Your task to perform on an android device: turn smart compose on in the gmail app Image 0: 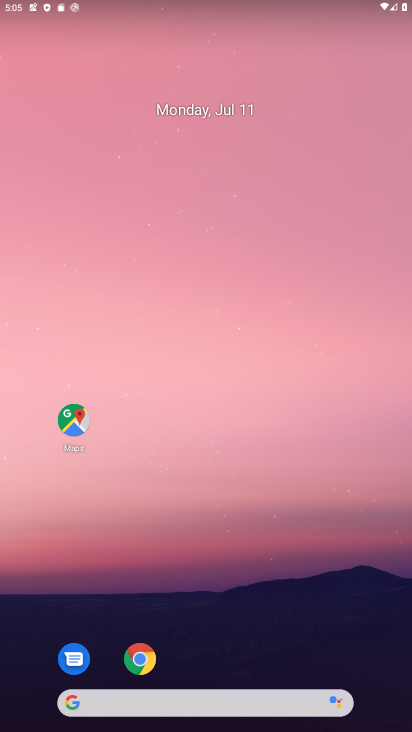
Step 0: drag from (387, 648) to (334, 122)
Your task to perform on an android device: turn smart compose on in the gmail app Image 1: 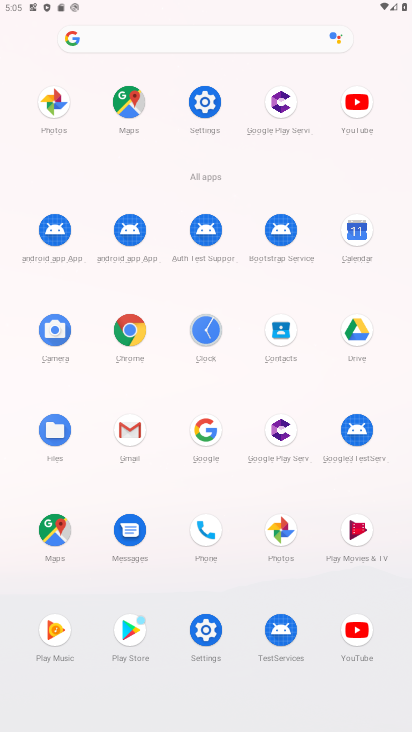
Step 1: click (127, 429)
Your task to perform on an android device: turn smart compose on in the gmail app Image 2: 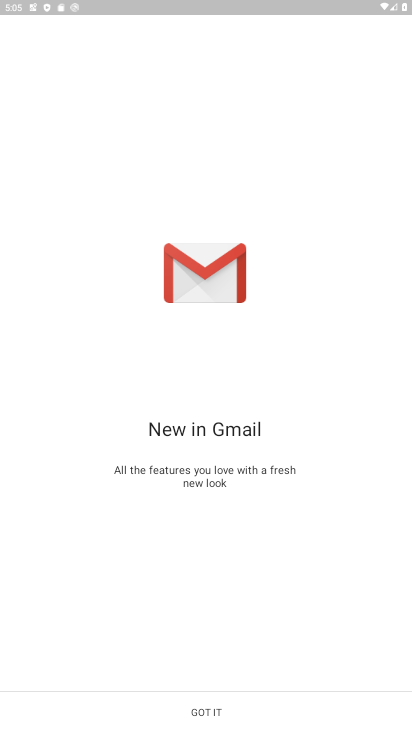
Step 2: click (195, 707)
Your task to perform on an android device: turn smart compose on in the gmail app Image 3: 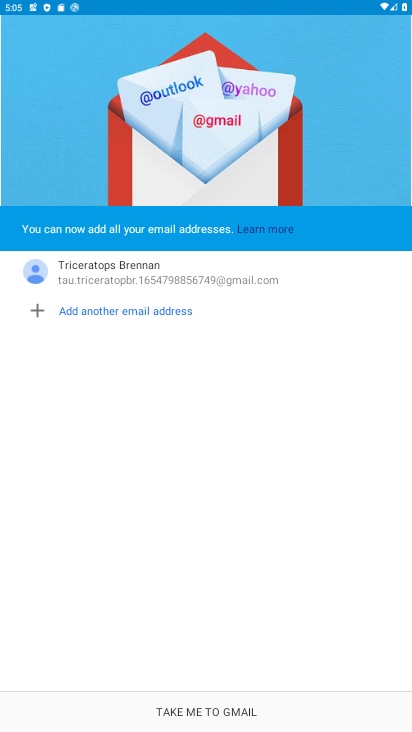
Step 3: click (207, 707)
Your task to perform on an android device: turn smart compose on in the gmail app Image 4: 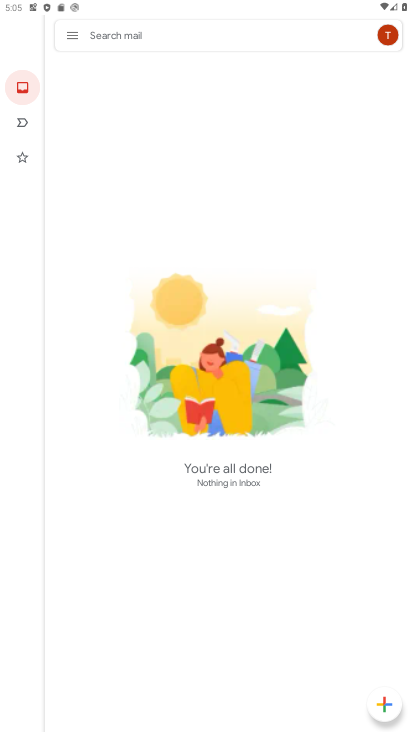
Step 4: click (65, 37)
Your task to perform on an android device: turn smart compose on in the gmail app Image 5: 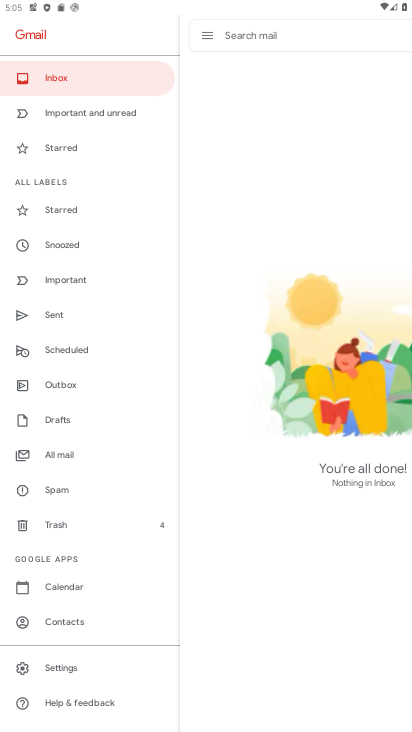
Step 5: drag from (115, 656) to (120, 251)
Your task to perform on an android device: turn smart compose on in the gmail app Image 6: 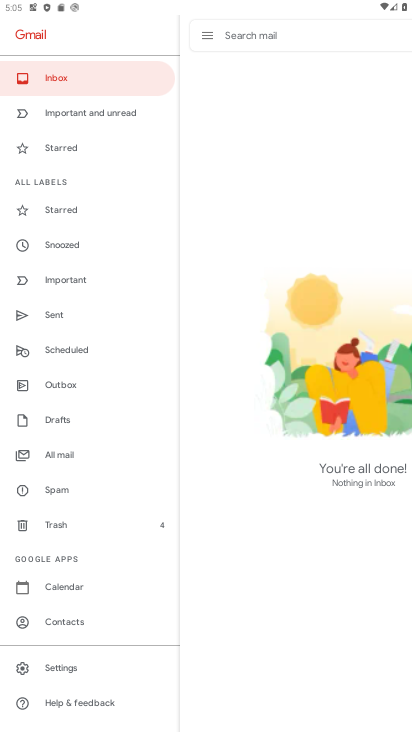
Step 6: click (61, 668)
Your task to perform on an android device: turn smart compose on in the gmail app Image 7: 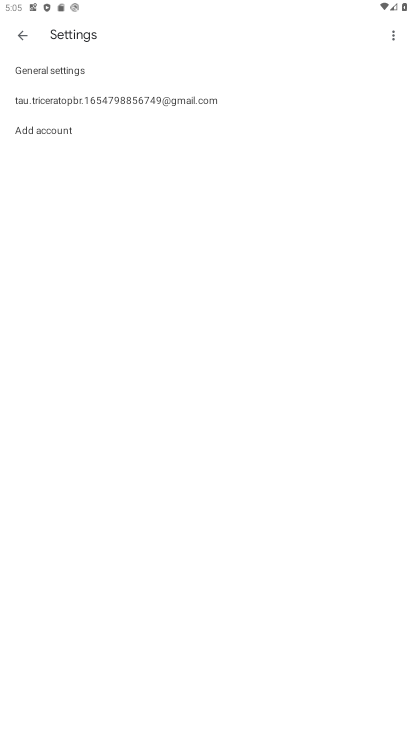
Step 7: click (101, 100)
Your task to perform on an android device: turn smart compose on in the gmail app Image 8: 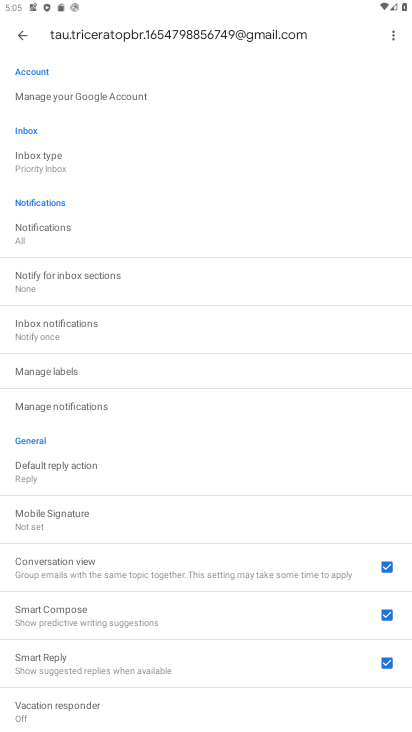
Step 8: task complete